Your task to perform on an android device: turn on data saver in the chrome app Image 0: 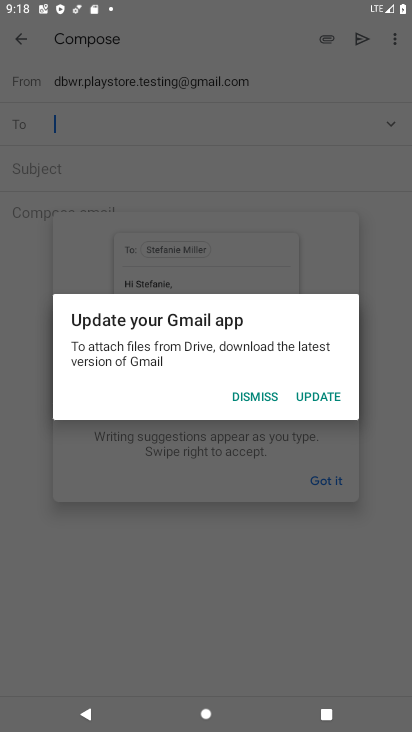
Step 0: press home button
Your task to perform on an android device: turn on data saver in the chrome app Image 1: 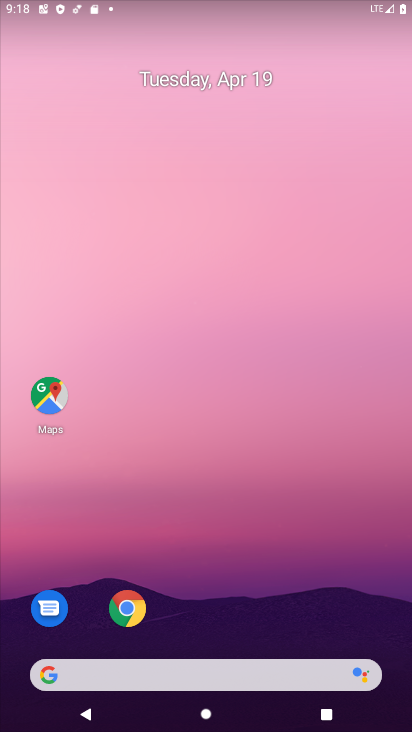
Step 1: click (125, 611)
Your task to perform on an android device: turn on data saver in the chrome app Image 2: 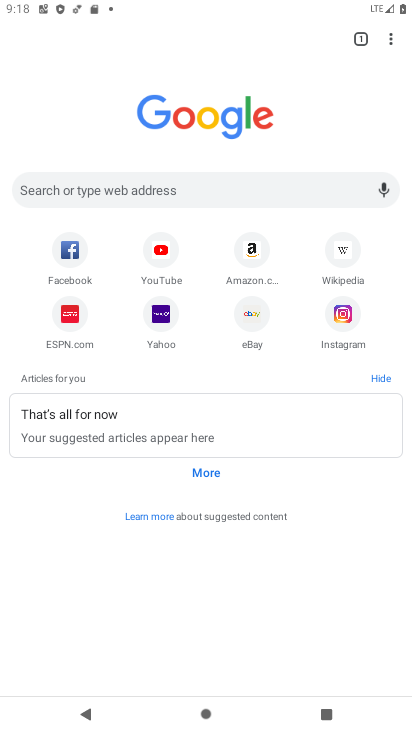
Step 2: click (387, 38)
Your task to perform on an android device: turn on data saver in the chrome app Image 3: 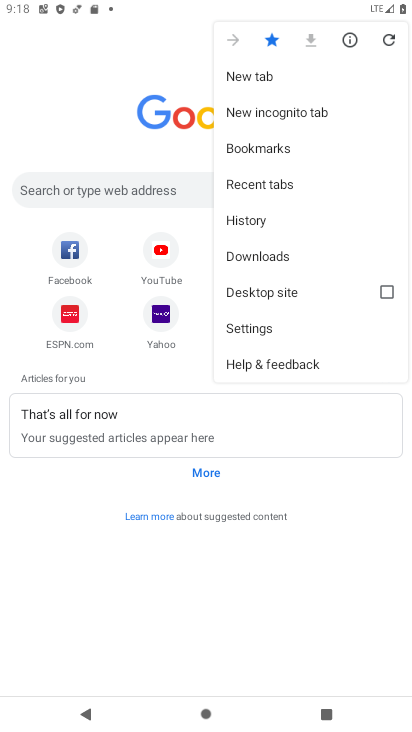
Step 3: click (258, 316)
Your task to perform on an android device: turn on data saver in the chrome app Image 4: 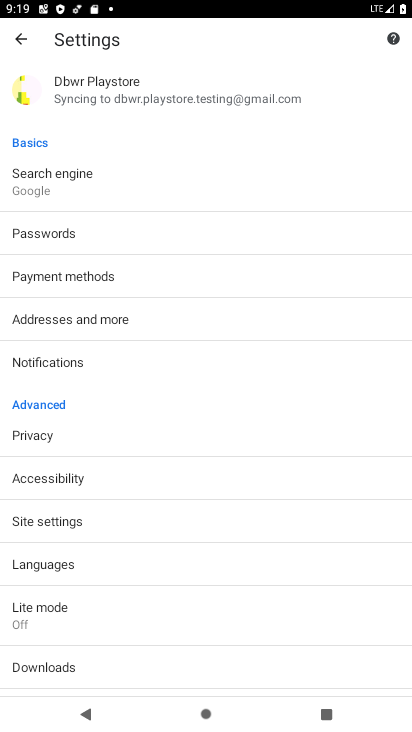
Step 4: click (19, 601)
Your task to perform on an android device: turn on data saver in the chrome app Image 5: 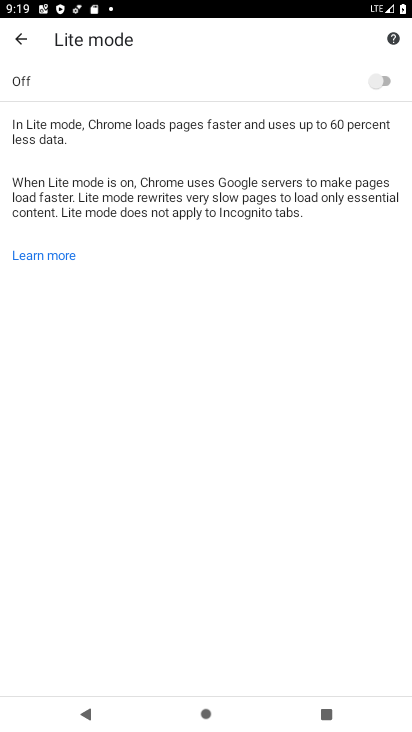
Step 5: click (384, 78)
Your task to perform on an android device: turn on data saver in the chrome app Image 6: 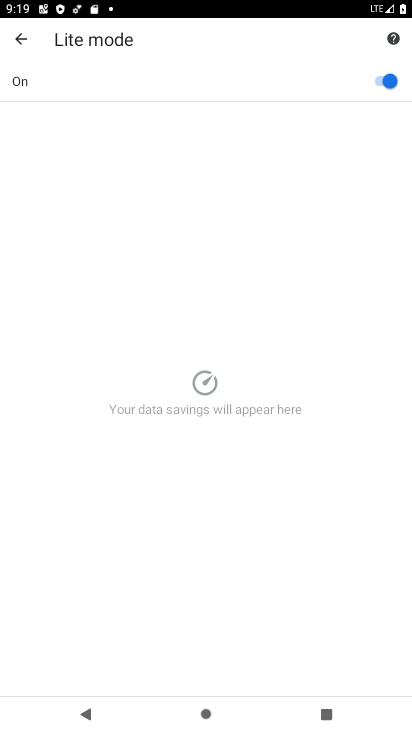
Step 6: task complete